Your task to perform on an android device: Add macbook to the cart on costco.com, then select checkout. Image 0: 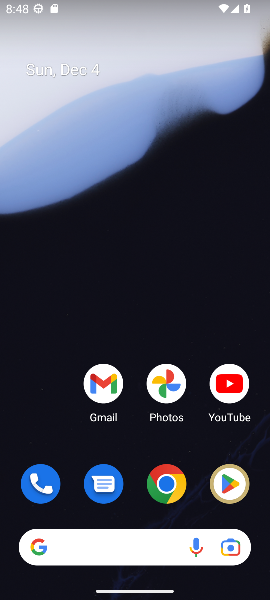
Step 0: click (167, 494)
Your task to perform on an android device: Add macbook to the cart on costco.com, then select checkout. Image 1: 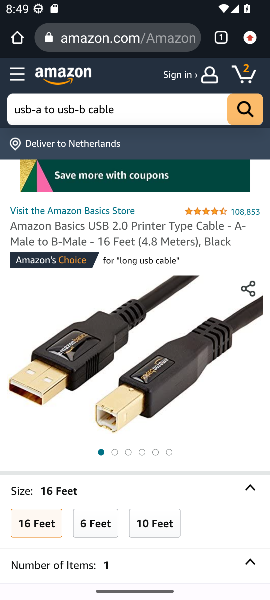
Step 1: click (124, 33)
Your task to perform on an android device: Add macbook to the cart on costco.com, then select checkout. Image 2: 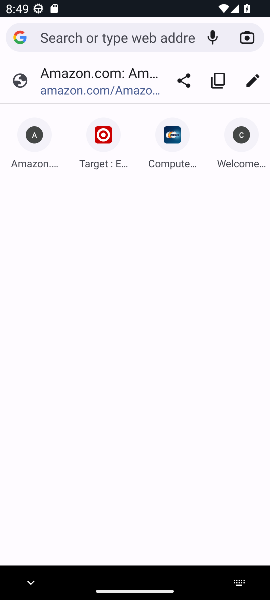
Step 2: type "costco.com"
Your task to perform on an android device: Add macbook to the cart on costco.com, then select checkout. Image 3: 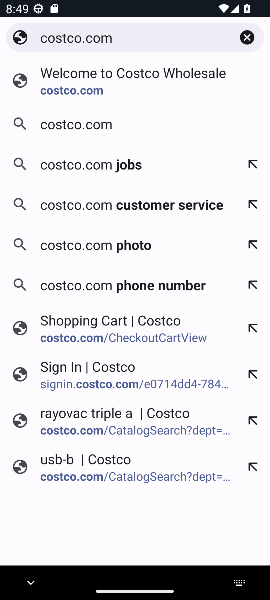
Step 3: click (68, 90)
Your task to perform on an android device: Add macbook to the cart on costco.com, then select checkout. Image 4: 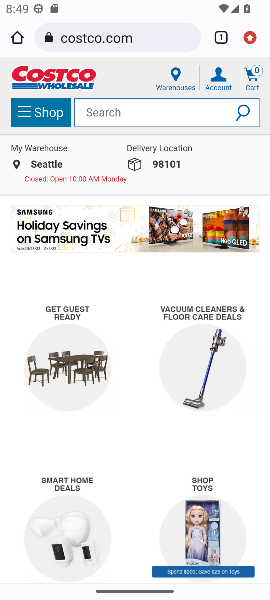
Step 4: click (109, 109)
Your task to perform on an android device: Add macbook to the cart on costco.com, then select checkout. Image 5: 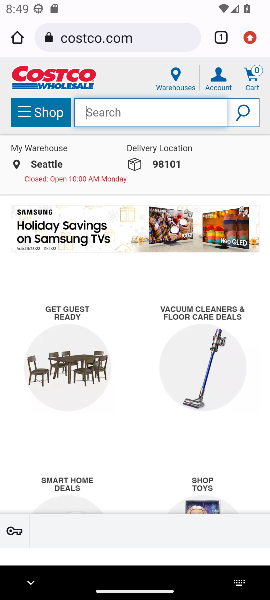
Step 5: type "macbook "
Your task to perform on an android device: Add macbook to the cart on costco.com, then select checkout. Image 6: 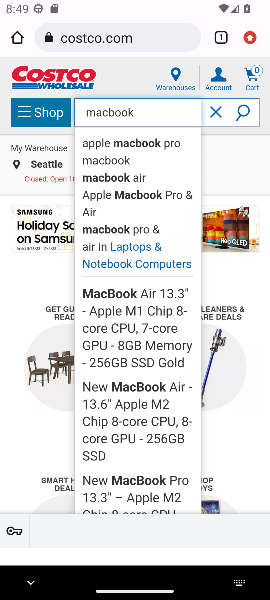
Step 6: click (248, 117)
Your task to perform on an android device: Add macbook to the cart on costco.com, then select checkout. Image 7: 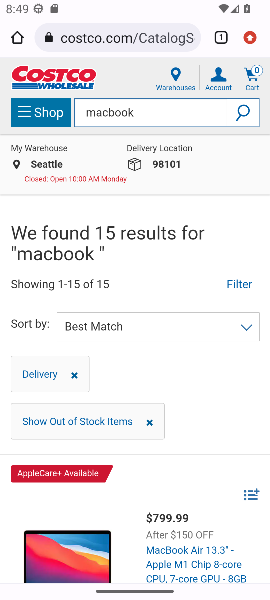
Step 7: drag from (146, 351) to (151, 206)
Your task to perform on an android device: Add macbook to the cart on costco.com, then select checkout. Image 8: 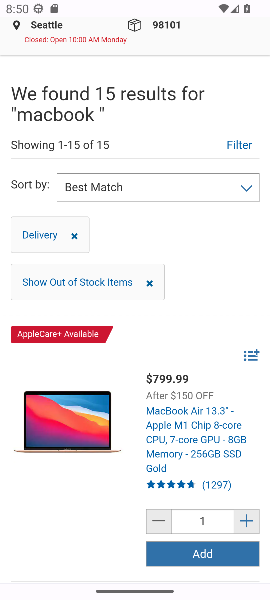
Step 8: click (198, 557)
Your task to perform on an android device: Add macbook to the cart on costco.com, then select checkout. Image 9: 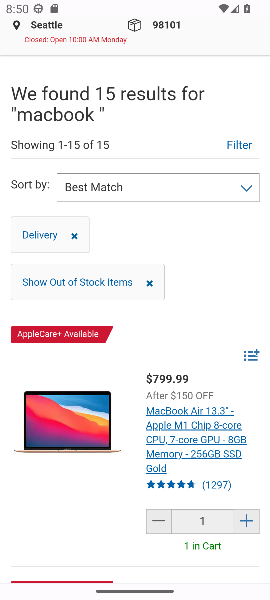
Step 9: drag from (157, 139) to (134, 378)
Your task to perform on an android device: Add macbook to the cart on costco.com, then select checkout. Image 10: 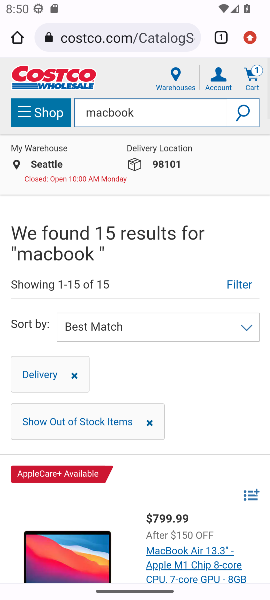
Step 10: click (246, 75)
Your task to perform on an android device: Add macbook to the cart on costco.com, then select checkout. Image 11: 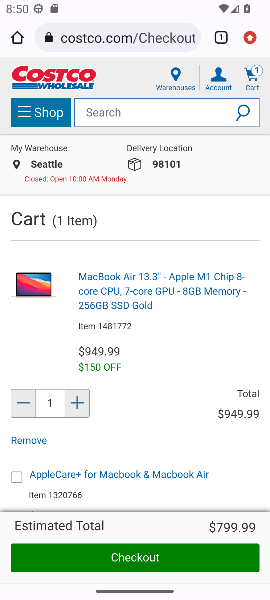
Step 11: drag from (178, 506) to (205, 346)
Your task to perform on an android device: Add macbook to the cart on costco.com, then select checkout. Image 12: 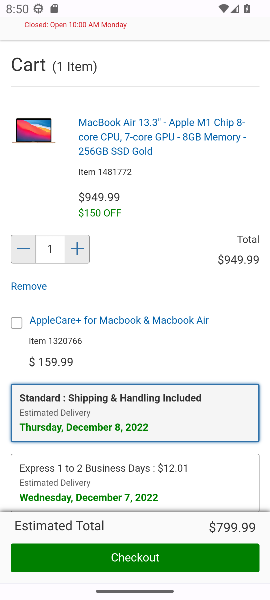
Step 12: click (134, 556)
Your task to perform on an android device: Add macbook to the cart on costco.com, then select checkout. Image 13: 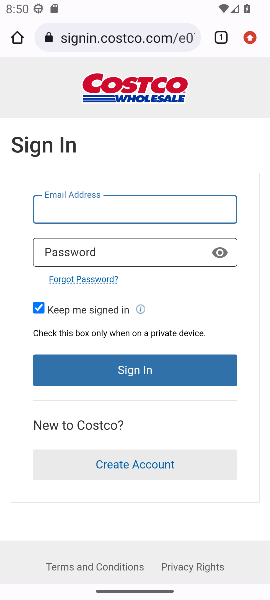
Step 13: task complete